Your task to perform on an android device: turn off improve location accuracy Image 0: 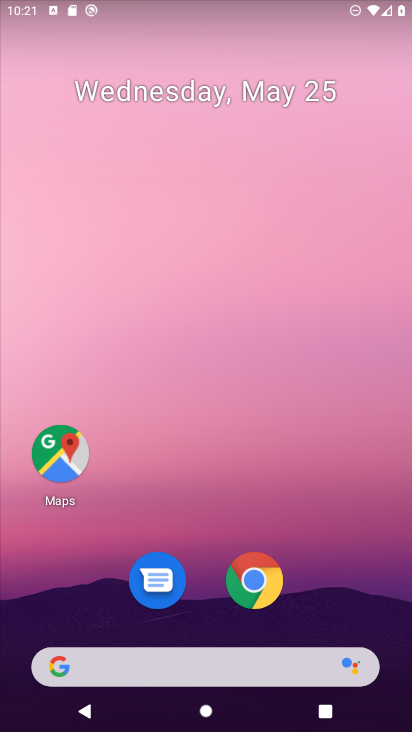
Step 0: press home button
Your task to perform on an android device: turn off improve location accuracy Image 1: 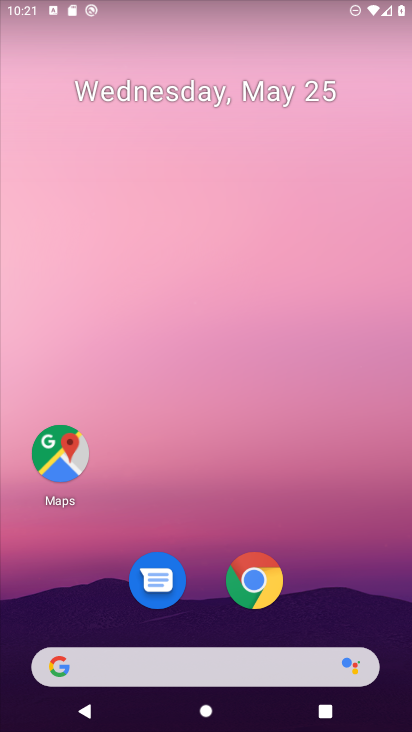
Step 1: drag from (10, 588) to (279, 87)
Your task to perform on an android device: turn off improve location accuracy Image 2: 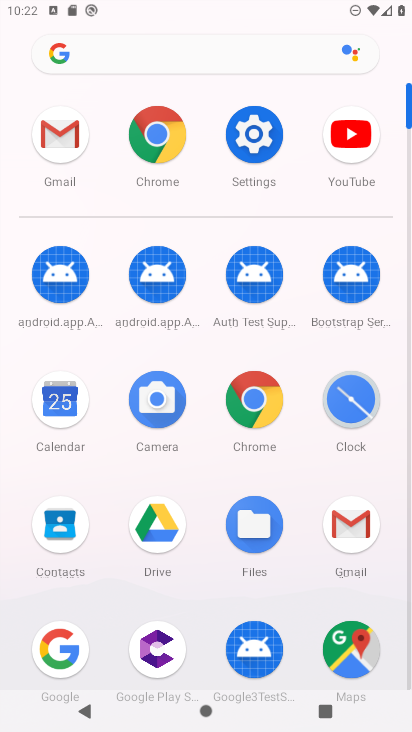
Step 2: click (258, 137)
Your task to perform on an android device: turn off improve location accuracy Image 3: 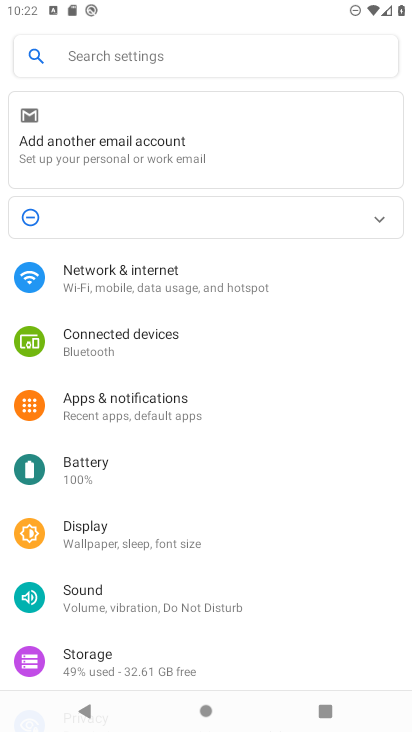
Step 3: drag from (52, 459) to (180, 203)
Your task to perform on an android device: turn off improve location accuracy Image 4: 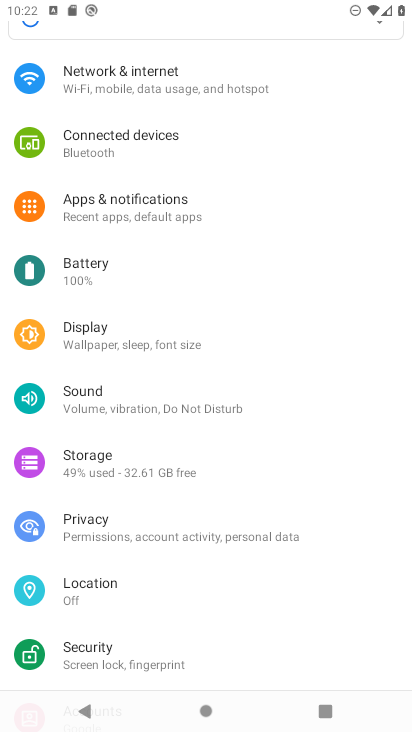
Step 4: click (100, 588)
Your task to perform on an android device: turn off improve location accuracy Image 5: 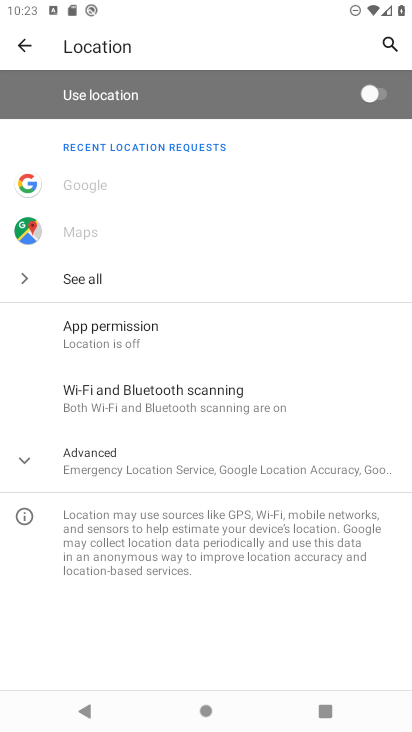
Step 5: click (121, 462)
Your task to perform on an android device: turn off improve location accuracy Image 6: 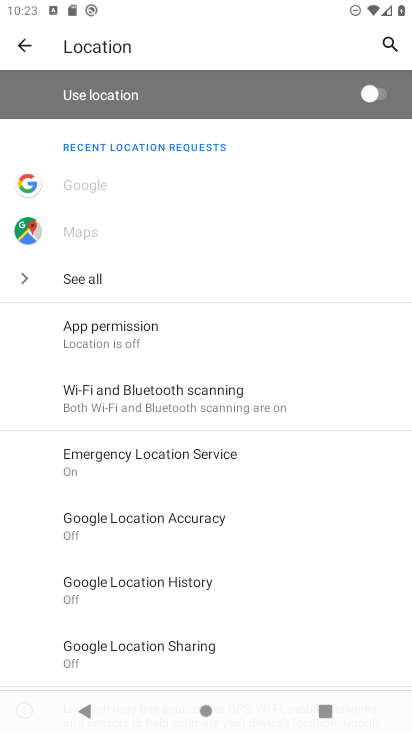
Step 6: click (154, 505)
Your task to perform on an android device: turn off improve location accuracy Image 7: 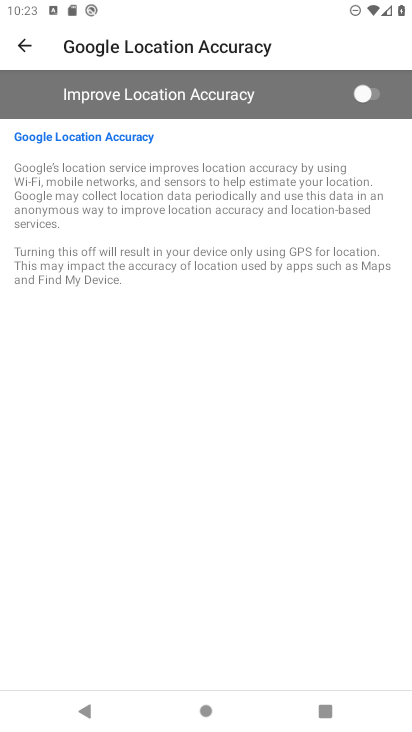
Step 7: task complete